Your task to perform on an android device: turn pop-ups on in chrome Image 0: 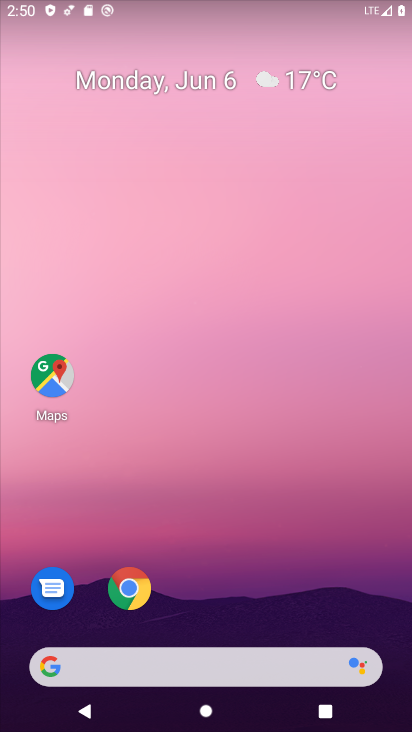
Step 0: drag from (214, 247) to (204, 193)
Your task to perform on an android device: turn pop-ups on in chrome Image 1: 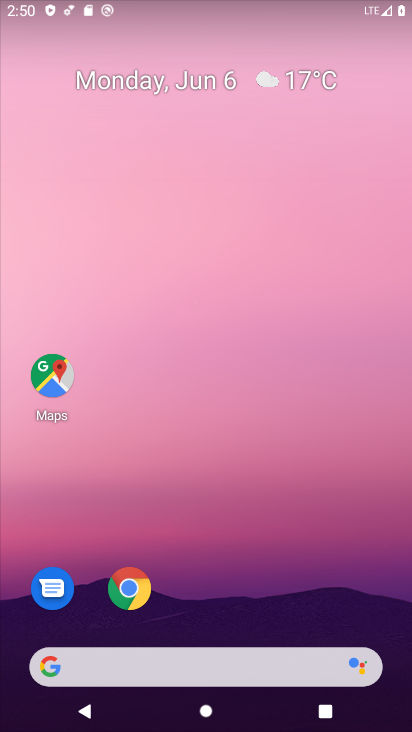
Step 1: drag from (251, 686) to (202, 173)
Your task to perform on an android device: turn pop-ups on in chrome Image 2: 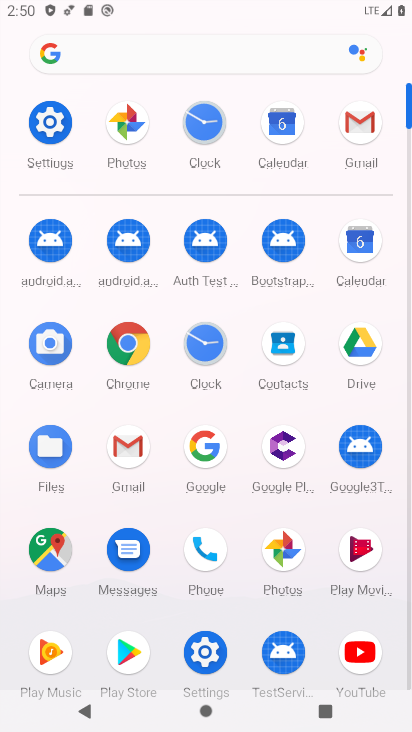
Step 2: click (123, 343)
Your task to perform on an android device: turn pop-ups on in chrome Image 3: 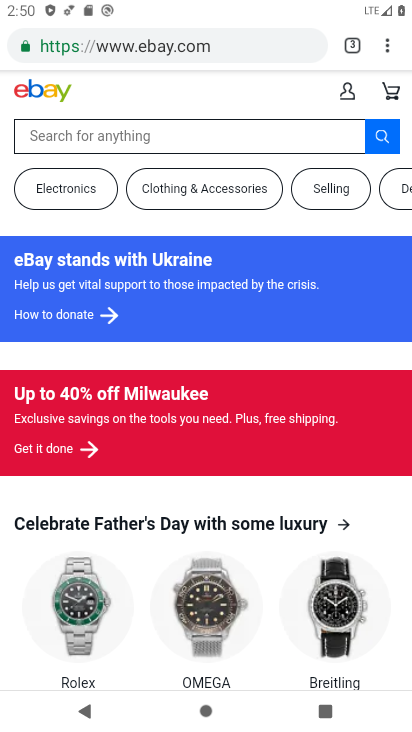
Step 3: click (387, 44)
Your task to perform on an android device: turn pop-ups on in chrome Image 4: 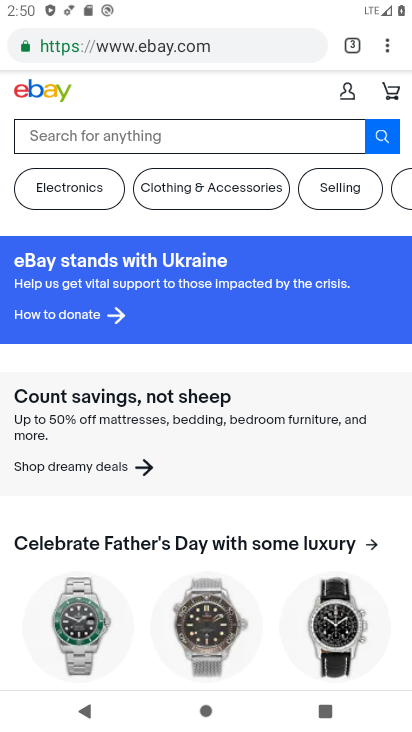
Step 4: click (387, 44)
Your task to perform on an android device: turn pop-ups on in chrome Image 5: 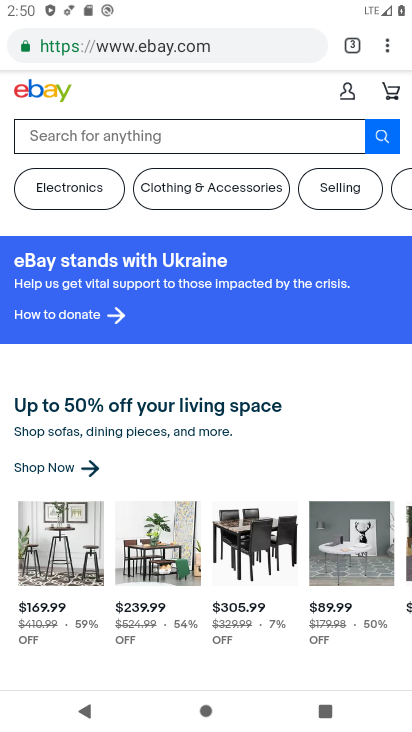
Step 5: drag from (383, 35) to (260, 547)
Your task to perform on an android device: turn pop-ups on in chrome Image 6: 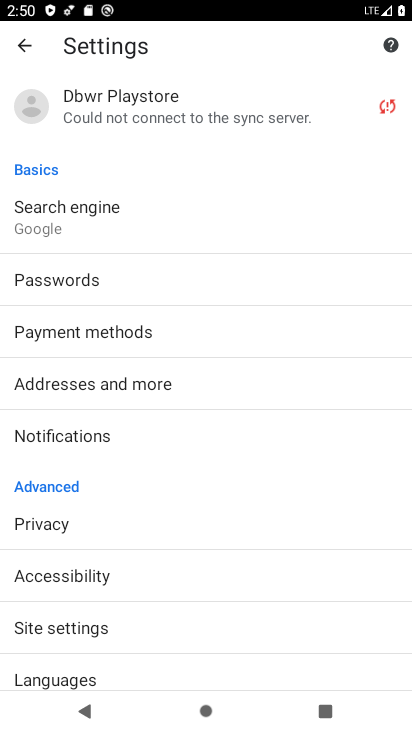
Step 6: click (136, 632)
Your task to perform on an android device: turn pop-ups on in chrome Image 7: 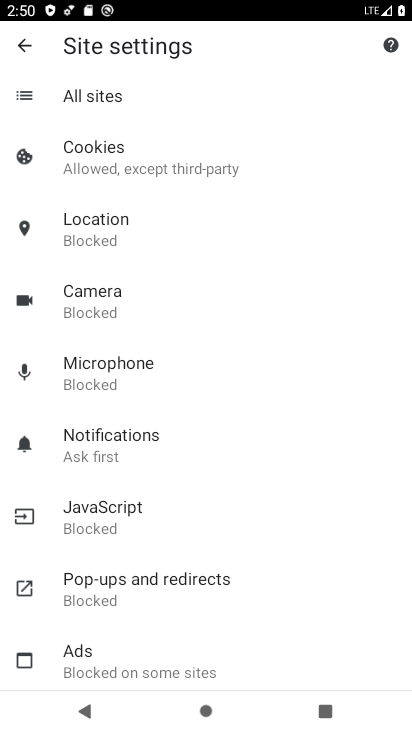
Step 7: click (147, 573)
Your task to perform on an android device: turn pop-ups on in chrome Image 8: 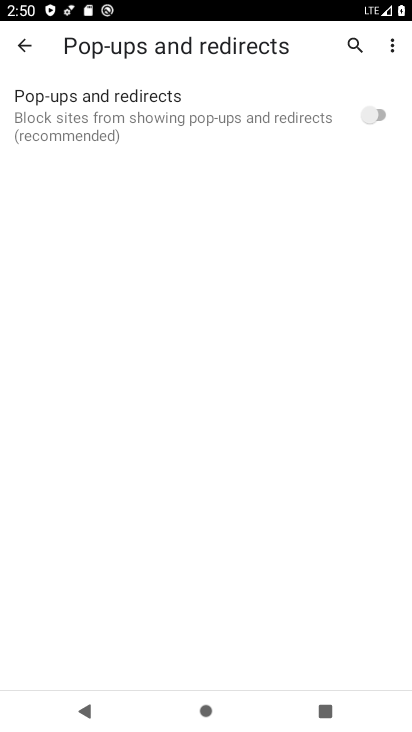
Step 8: click (381, 110)
Your task to perform on an android device: turn pop-ups on in chrome Image 9: 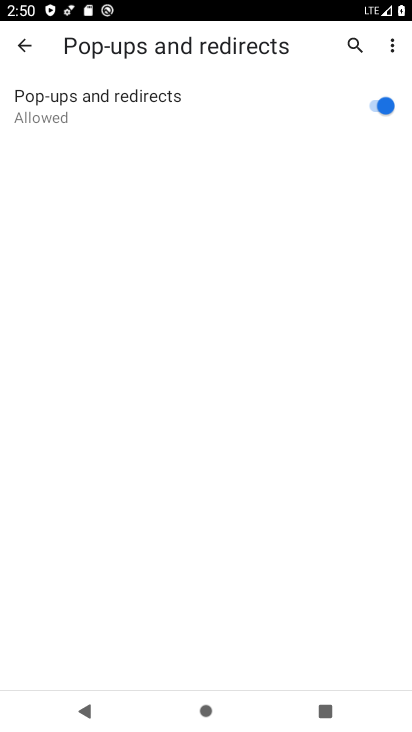
Step 9: task complete